Your task to perform on an android device: Open Google Chrome Image 0: 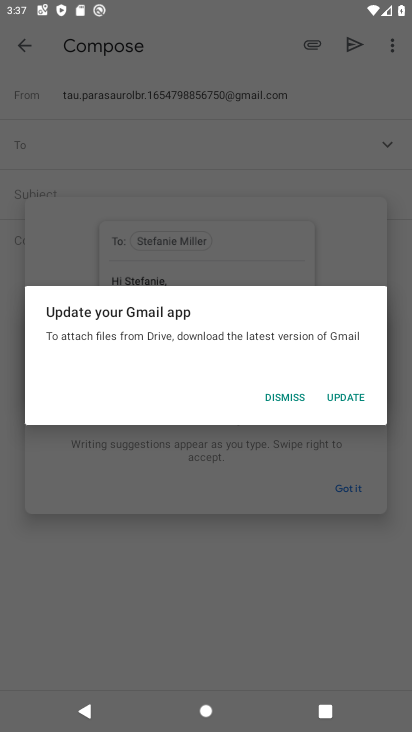
Step 0: press home button
Your task to perform on an android device: Open Google Chrome Image 1: 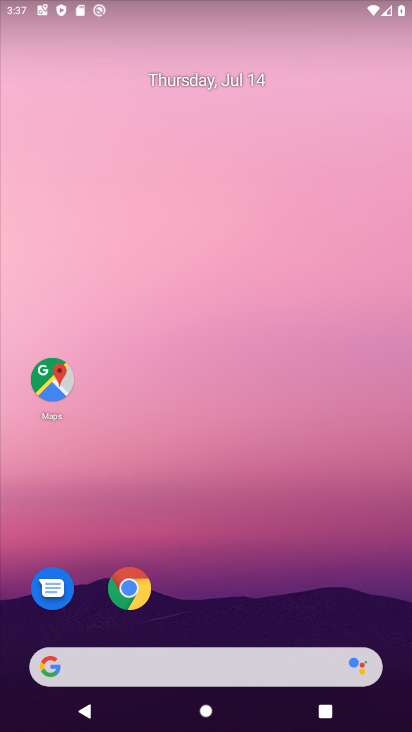
Step 1: drag from (274, 548) to (273, 29)
Your task to perform on an android device: Open Google Chrome Image 2: 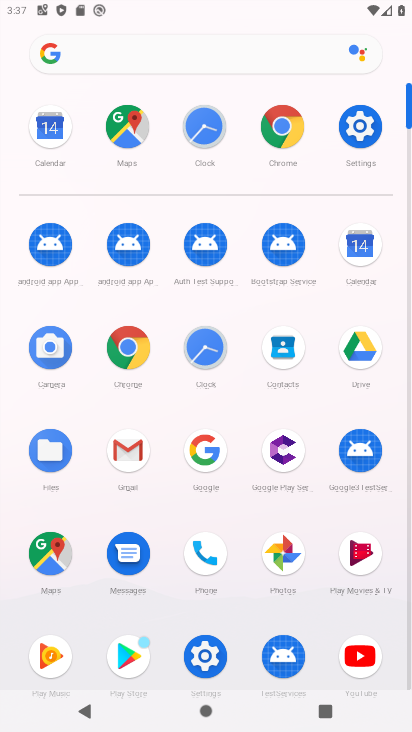
Step 2: click (280, 131)
Your task to perform on an android device: Open Google Chrome Image 3: 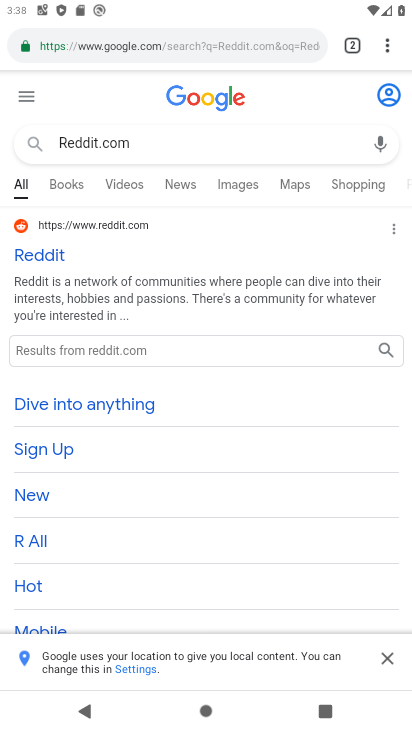
Step 3: task complete